Your task to perform on an android device: star an email in the gmail app Image 0: 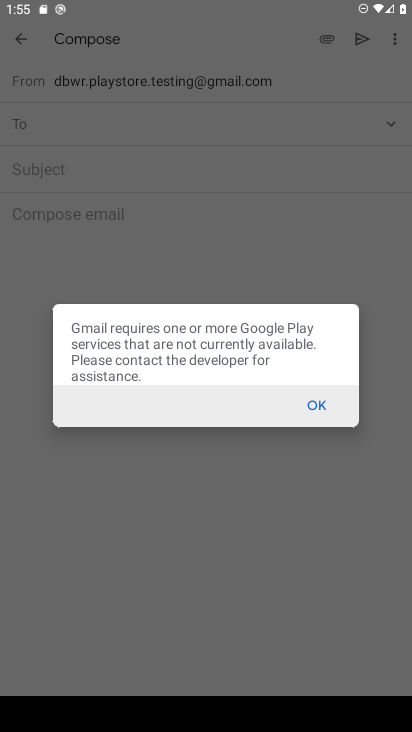
Step 0: press home button
Your task to perform on an android device: star an email in the gmail app Image 1: 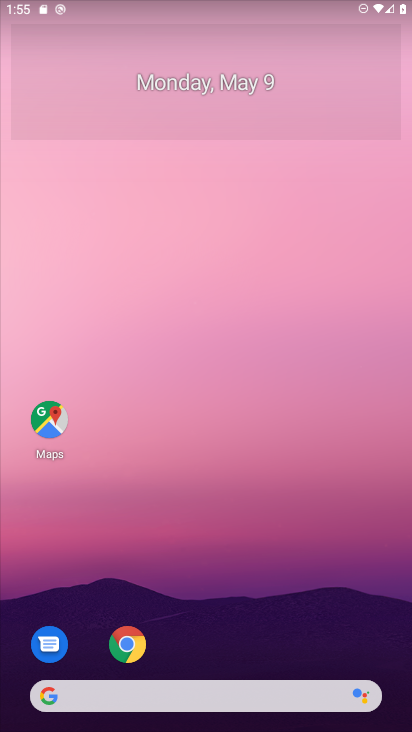
Step 1: drag from (283, 535) to (272, 11)
Your task to perform on an android device: star an email in the gmail app Image 2: 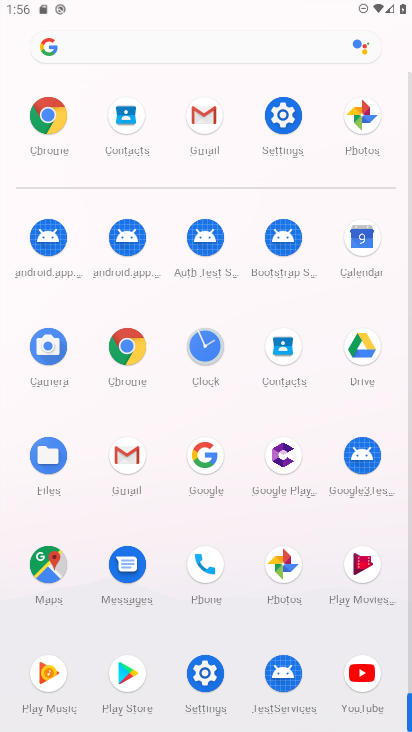
Step 2: click (208, 143)
Your task to perform on an android device: star an email in the gmail app Image 3: 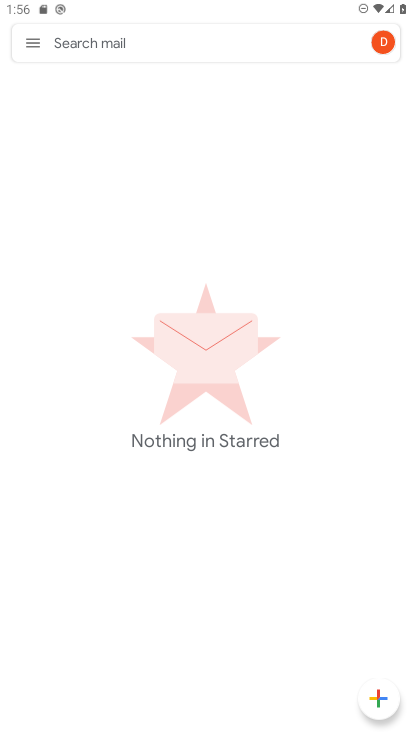
Step 3: click (25, 35)
Your task to perform on an android device: star an email in the gmail app Image 4: 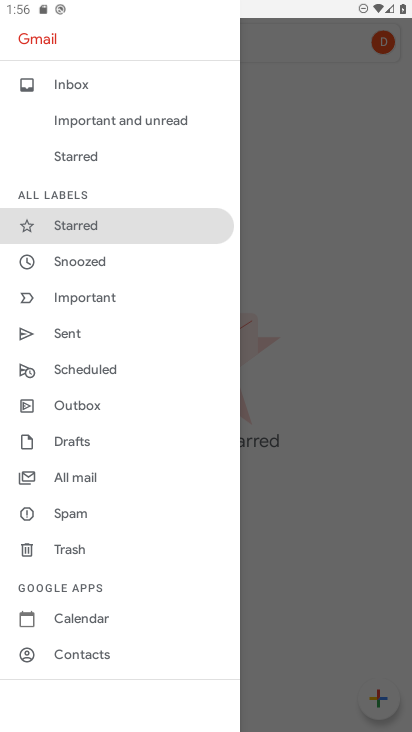
Step 4: click (75, 478)
Your task to perform on an android device: star an email in the gmail app Image 5: 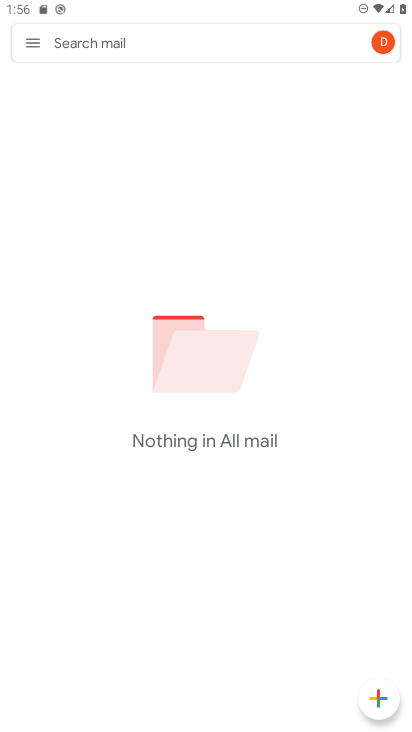
Step 5: task complete